Your task to perform on an android device: Add sony triple a to the cart on amazon, then select checkout. Image 0: 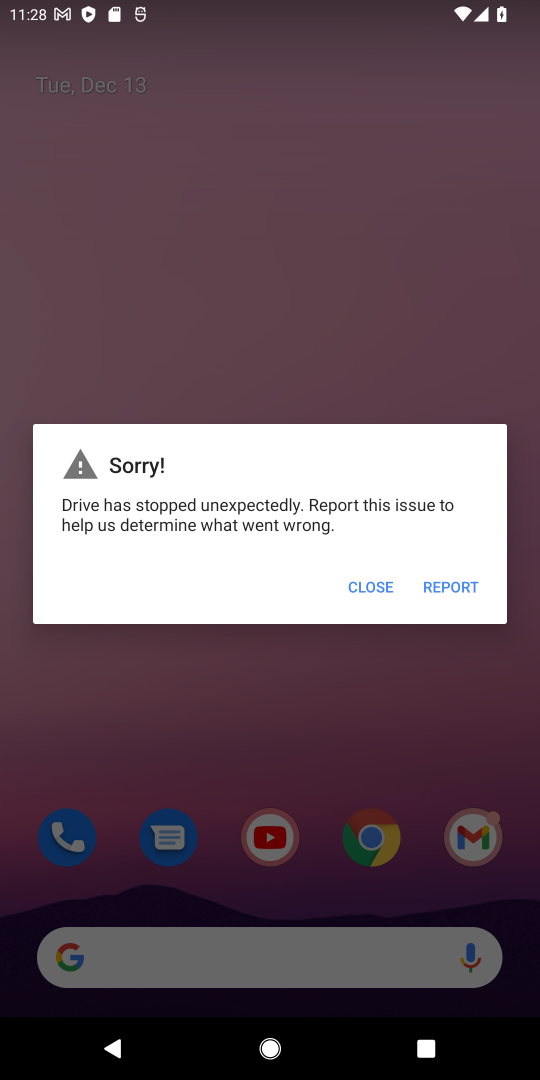
Step 0: click (357, 593)
Your task to perform on an android device: Add sony triple a to the cart on amazon, then select checkout. Image 1: 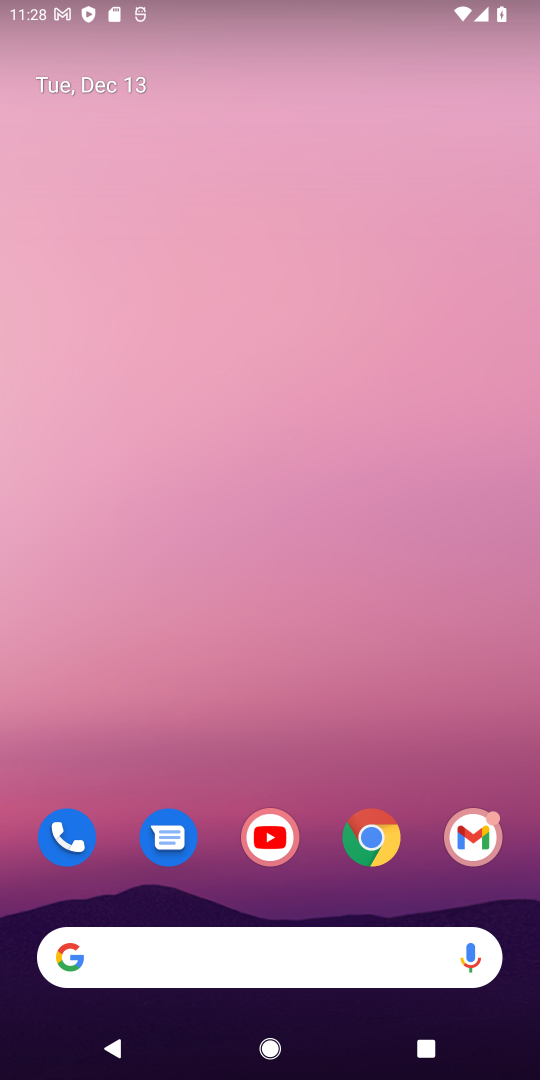
Step 1: click (238, 936)
Your task to perform on an android device: Add sony triple a to the cart on amazon, then select checkout. Image 2: 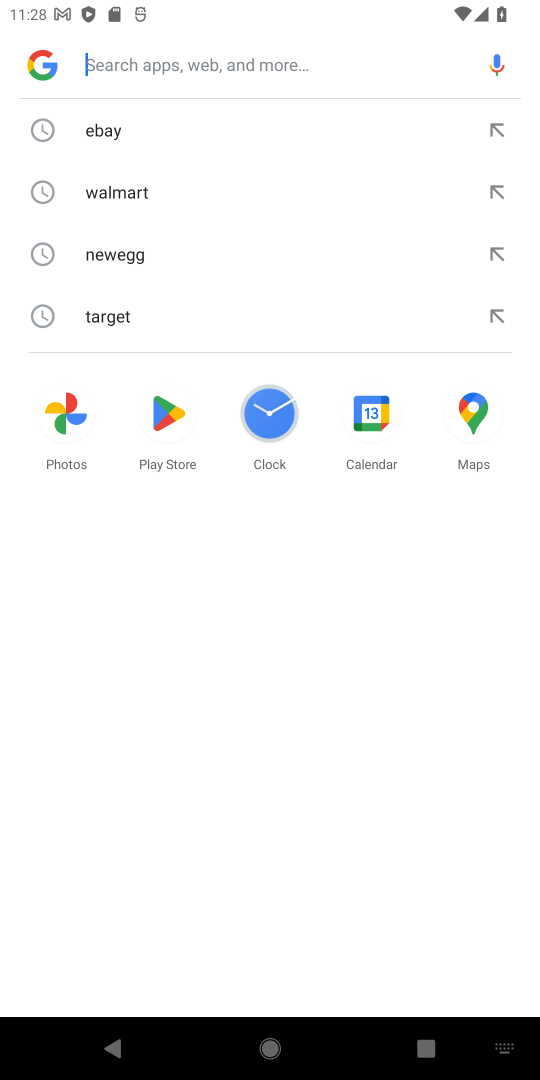
Step 2: type "amazon"
Your task to perform on an android device: Add sony triple a to the cart on amazon, then select checkout. Image 3: 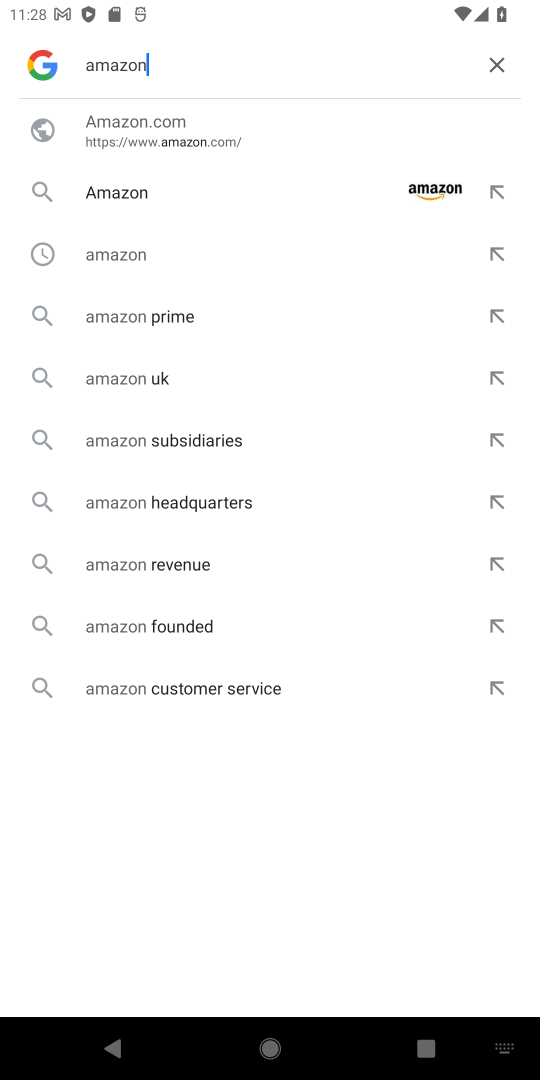
Step 3: click (153, 157)
Your task to perform on an android device: Add sony triple a to the cart on amazon, then select checkout. Image 4: 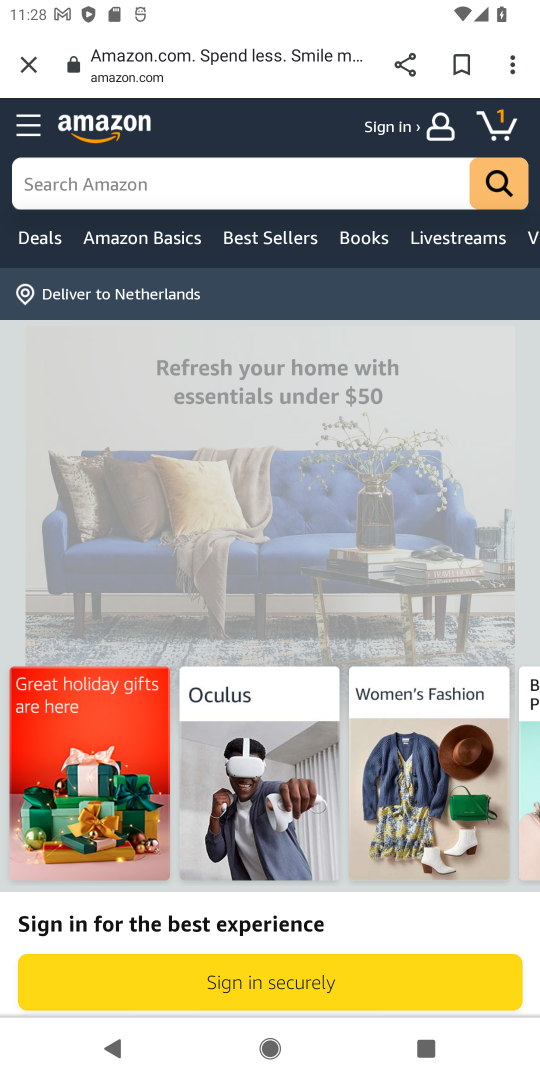
Step 4: click (167, 172)
Your task to perform on an android device: Add sony triple a to the cart on amazon, then select checkout. Image 5: 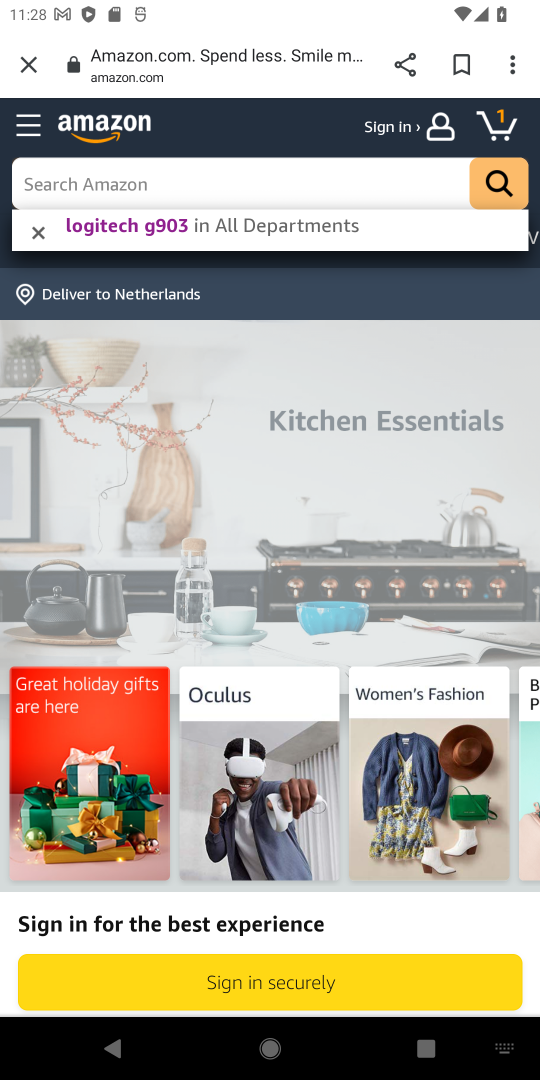
Step 5: type "sony triple"
Your task to perform on an android device: Add sony triple a to the cart on amazon, then select checkout. Image 6: 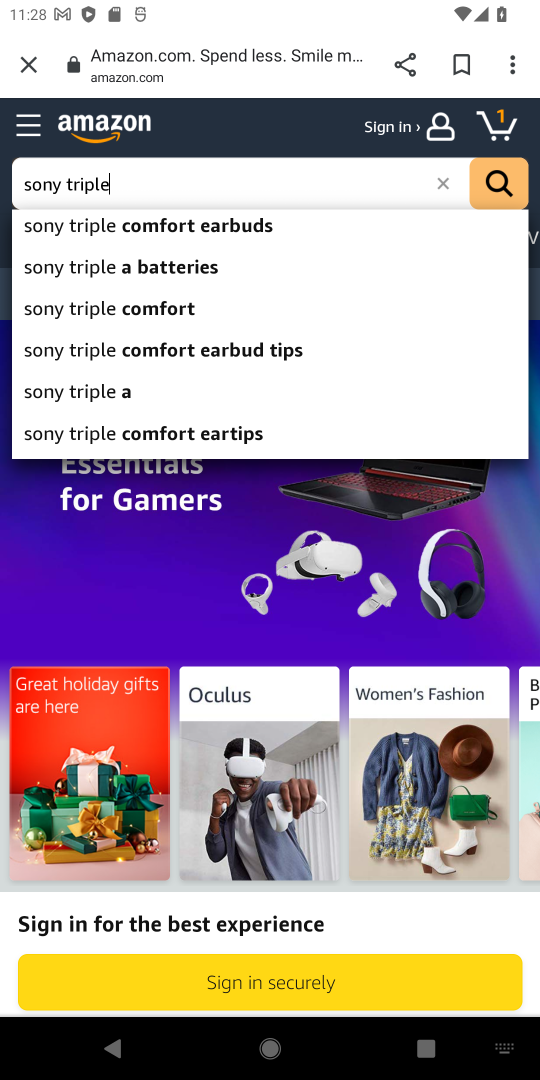
Step 6: click (207, 280)
Your task to perform on an android device: Add sony triple a to the cart on amazon, then select checkout. Image 7: 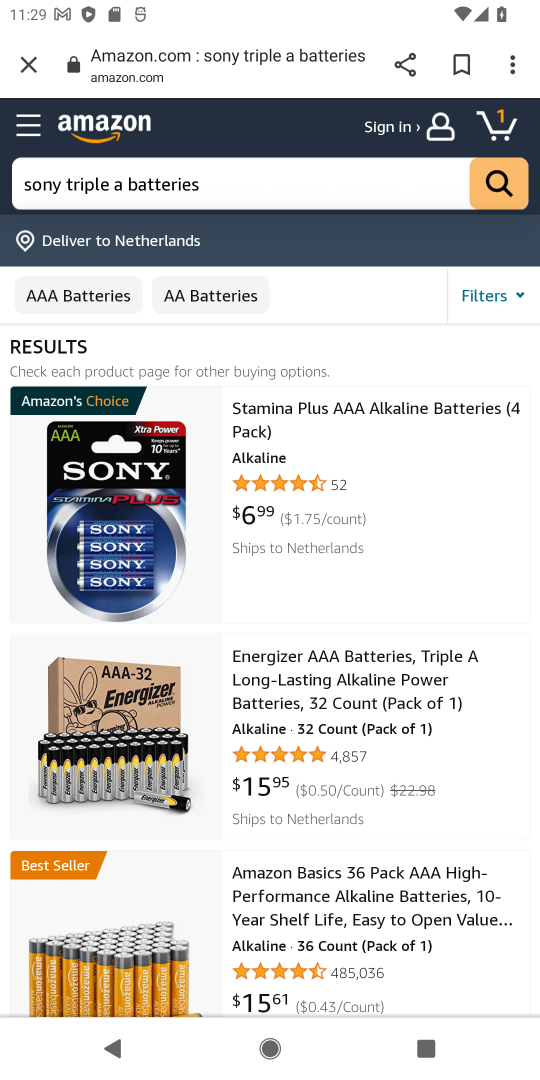
Step 7: click (124, 549)
Your task to perform on an android device: Add sony triple a to the cart on amazon, then select checkout. Image 8: 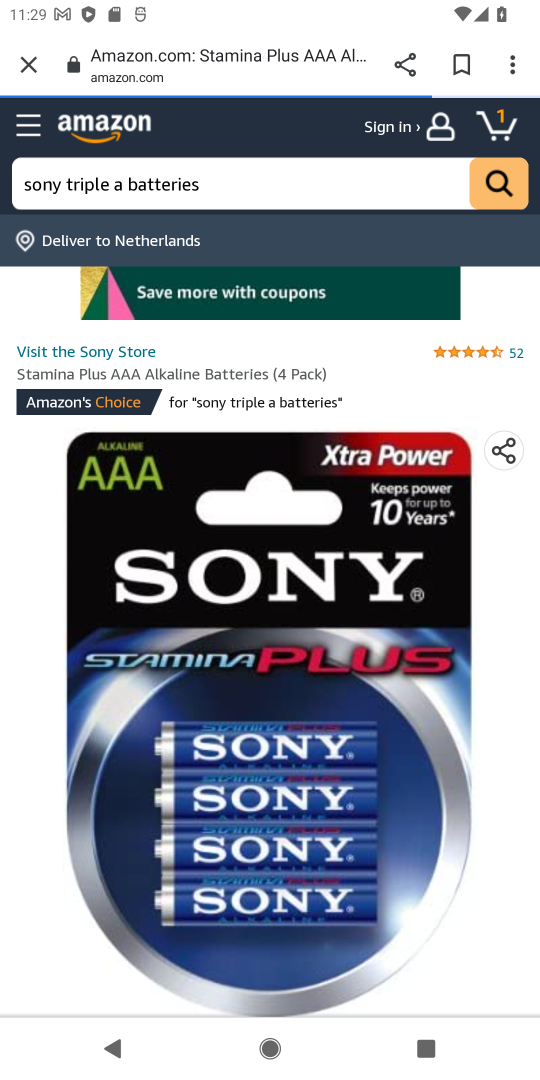
Step 8: drag from (262, 789) to (267, 262)
Your task to perform on an android device: Add sony triple a to the cart on amazon, then select checkout. Image 9: 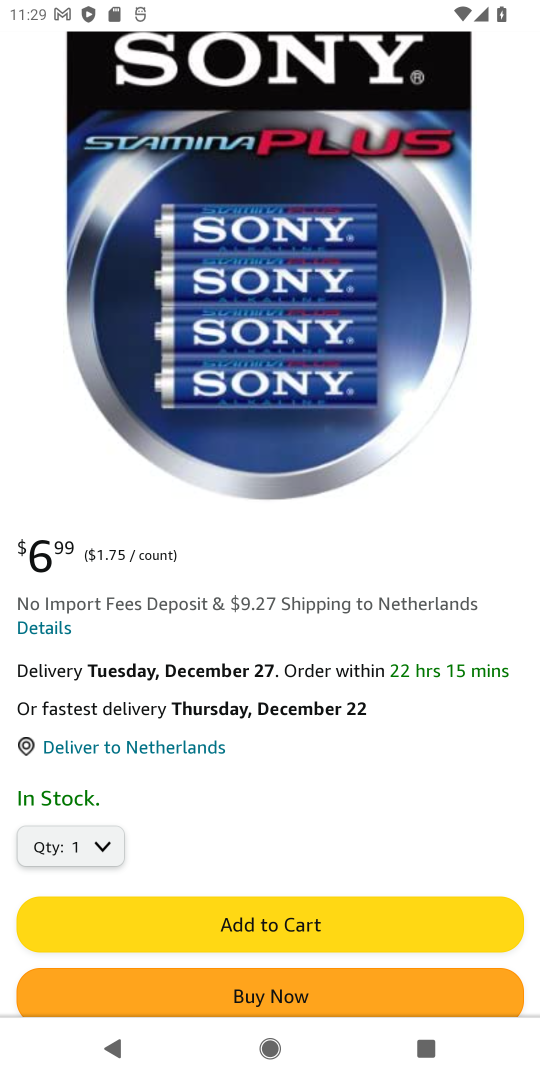
Step 9: click (321, 916)
Your task to perform on an android device: Add sony triple a to the cart on amazon, then select checkout. Image 10: 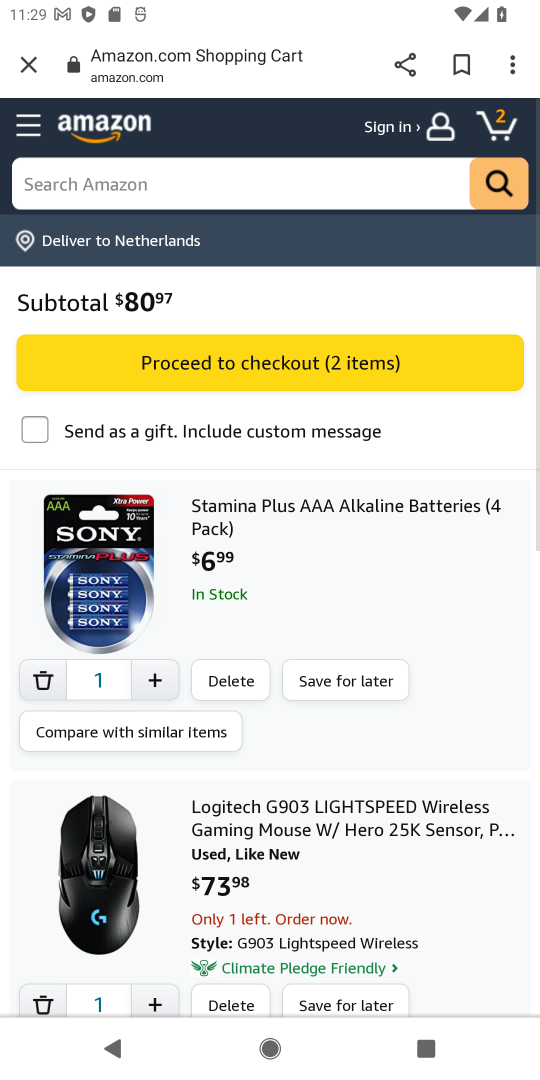
Step 10: task complete